Your task to perform on an android device: toggle notification dots Image 0: 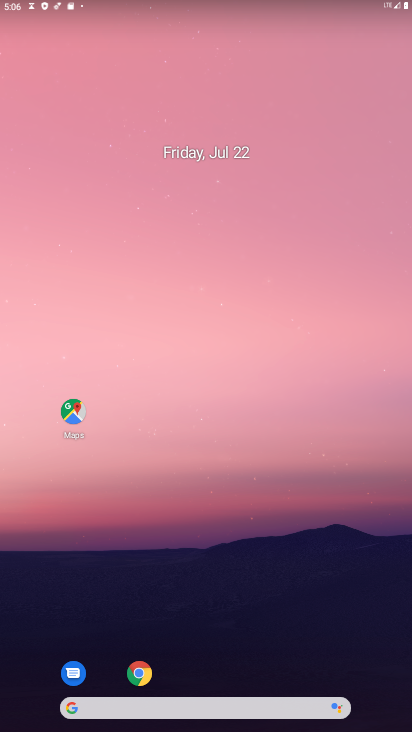
Step 0: press home button
Your task to perform on an android device: toggle notification dots Image 1: 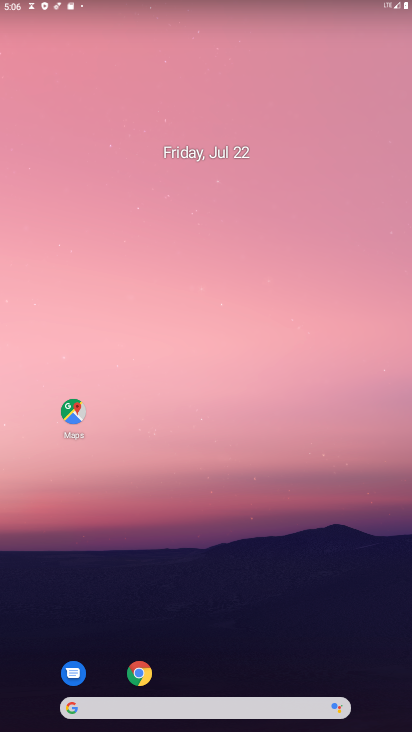
Step 1: drag from (236, 669) to (276, 69)
Your task to perform on an android device: toggle notification dots Image 2: 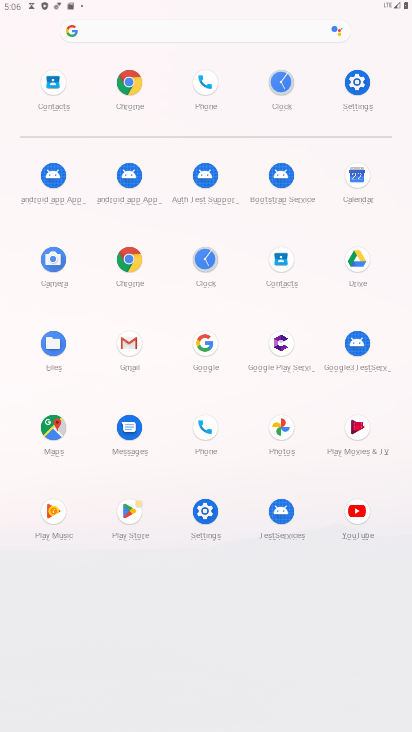
Step 2: click (352, 79)
Your task to perform on an android device: toggle notification dots Image 3: 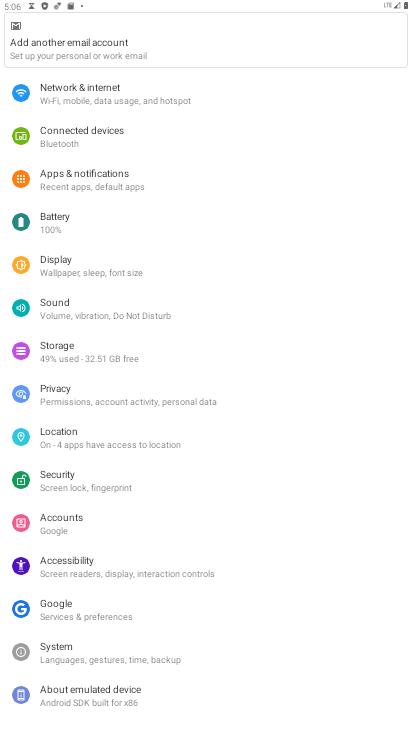
Step 3: click (83, 184)
Your task to perform on an android device: toggle notification dots Image 4: 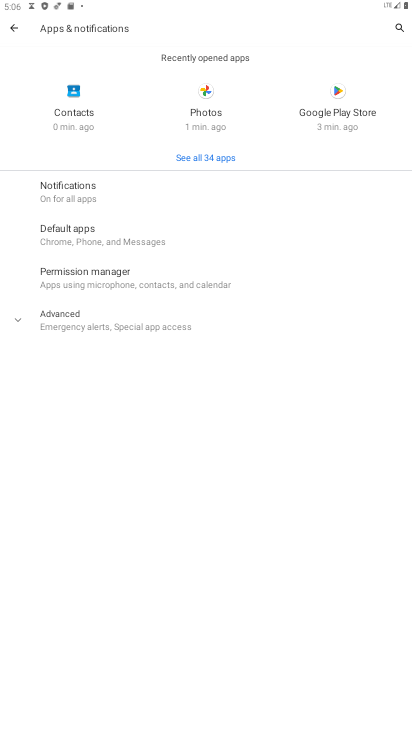
Step 4: click (81, 186)
Your task to perform on an android device: toggle notification dots Image 5: 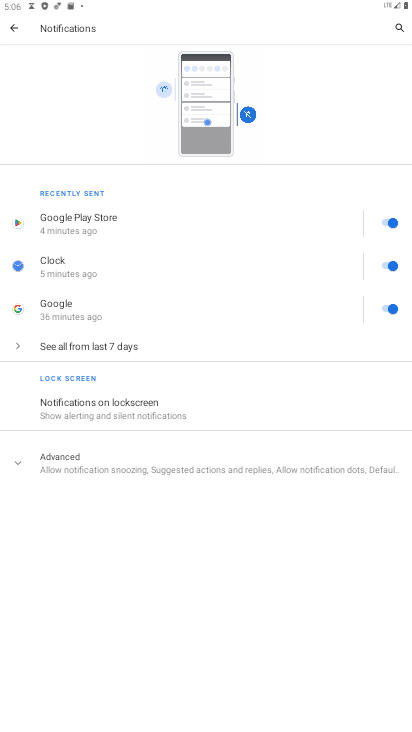
Step 5: click (72, 464)
Your task to perform on an android device: toggle notification dots Image 6: 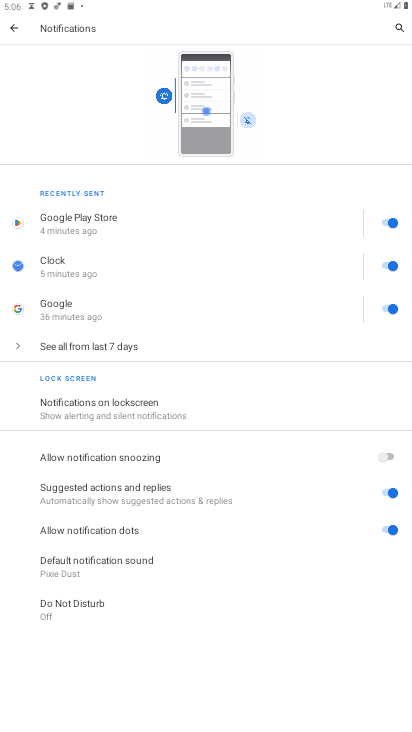
Step 6: click (393, 532)
Your task to perform on an android device: toggle notification dots Image 7: 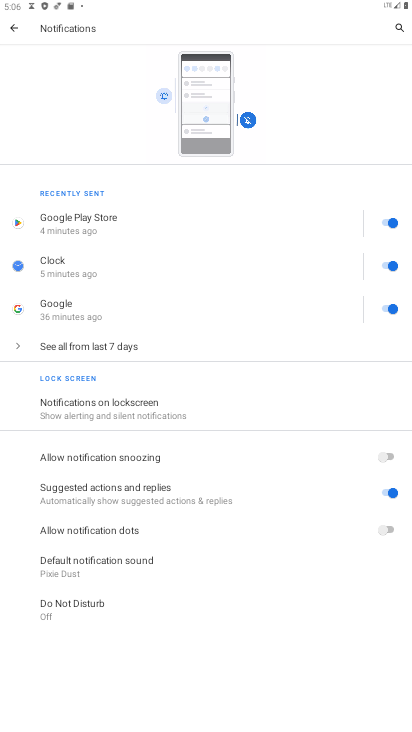
Step 7: task complete